Your task to perform on an android device: find snoozed emails in the gmail app Image 0: 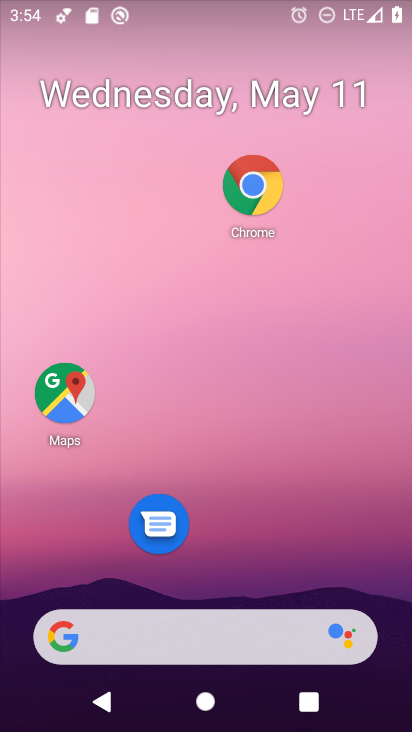
Step 0: drag from (323, 502) to (317, 10)
Your task to perform on an android device: find snoozed emails in the gmail app Image 1: 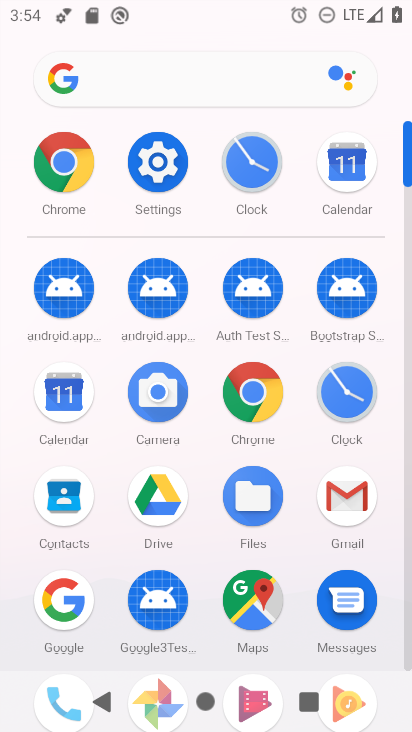
Step 1: click (347, 495)
Your task to perform on an android device: find snoozed emails in the gmail app Image 2: 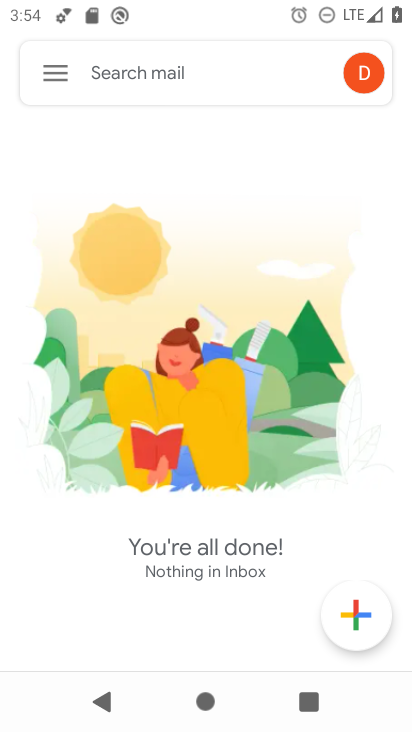
Step 2: click (61, 70)
Your task to perform on an android device: find snoozed emails in the gmail app Image 3: 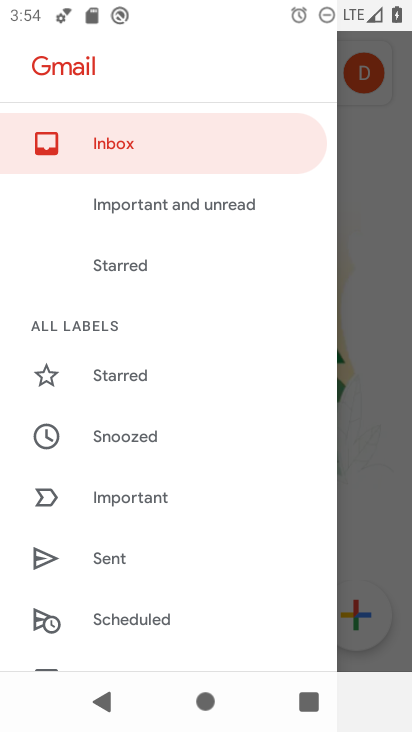
Step 3: click (156, 434)
Your task to perform on an android device: find snoozed emails in the gmail app Image 4: 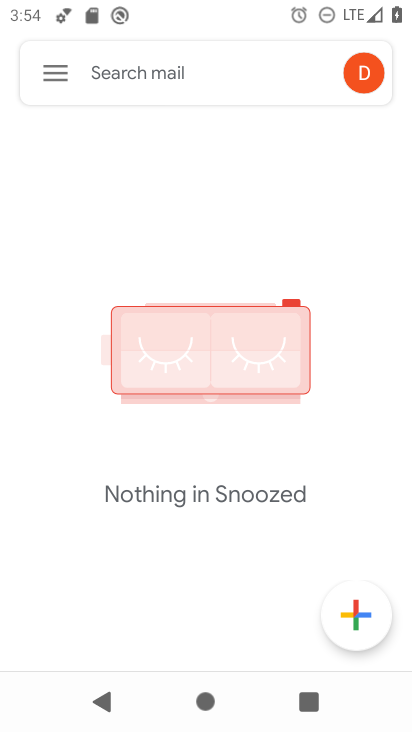
Step 4: task complete